Your task to perform on an android device: Open Youtube and go to "Your channel" Image 0: 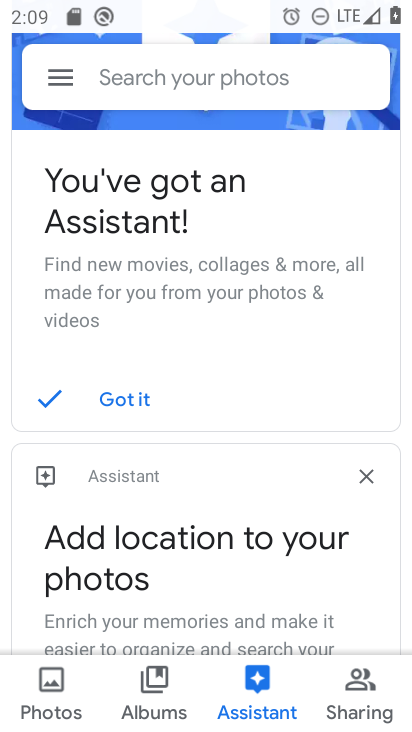
Step 0: press home button
Your task to perform on an android device: Open Youtube and go to "Your channel" Image 1: 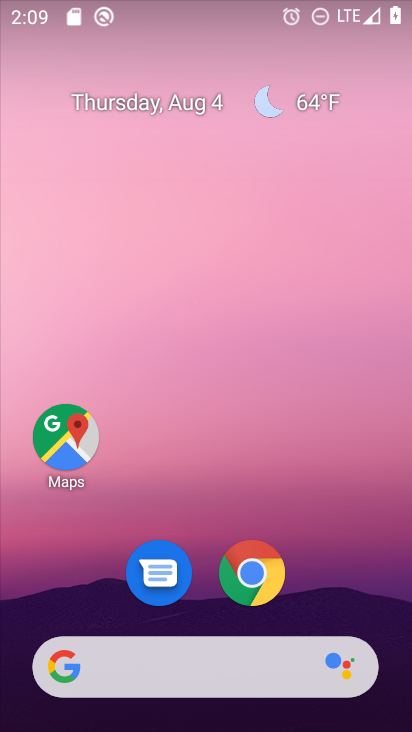
Step 1: drag from (329, 606) to (249, 171)
Your task to perform on an android device: Open Youtube and go to "Your channel" Image 2: 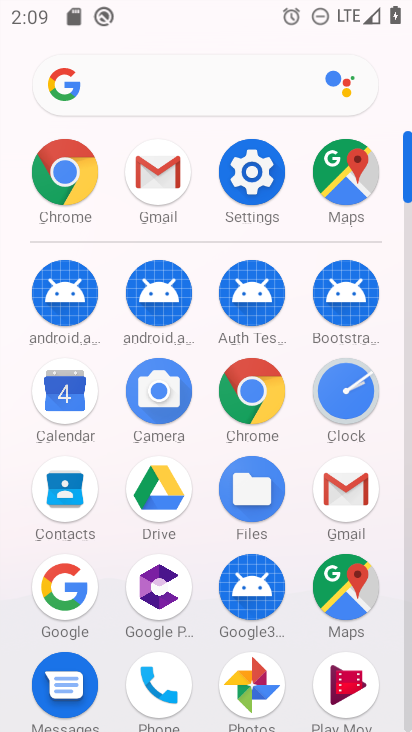
Step 2: drag from (198, 553) to (208, 217)
Your task to perform on an android device: Open Youtube and go to "Your channel" Image 3: 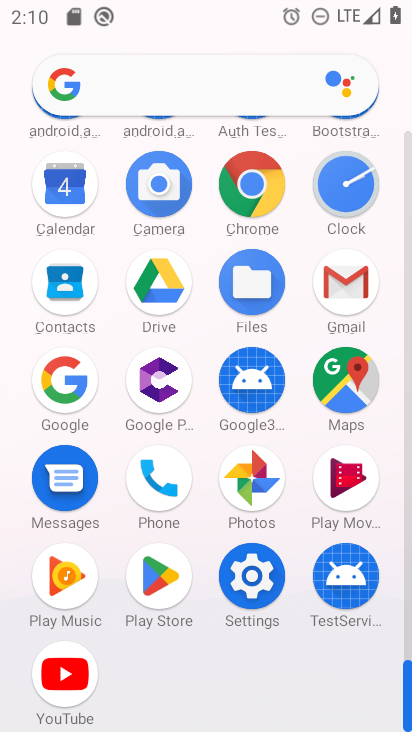
Step 3: click (53, 668)
Your task to perform on an android device: Open Youtube and go to "Your channel" Image 4: 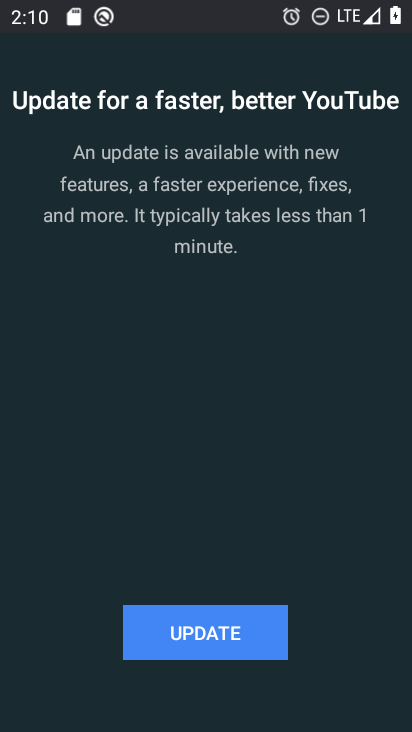
Step 4: click (211, 619)
Your task to perform on an android device: Open Youtube and go to "Your channel" Image 5: 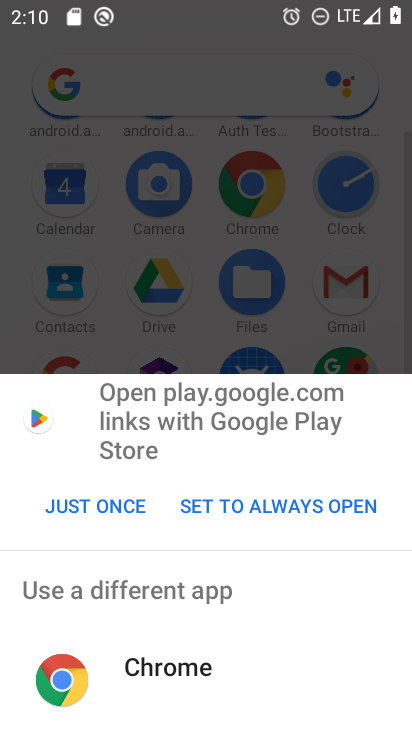
Step 5: click (116, 507)
Your task to perform on an android device: Open Youtube and go to "Your channel" Image 6: 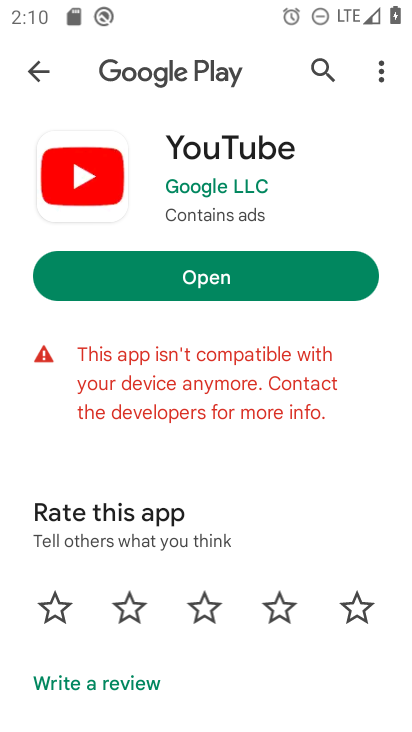
Step 6: click (176, 271)
Your task to perform on an android device: Open Youtube and go to "Your channel" Image 7: 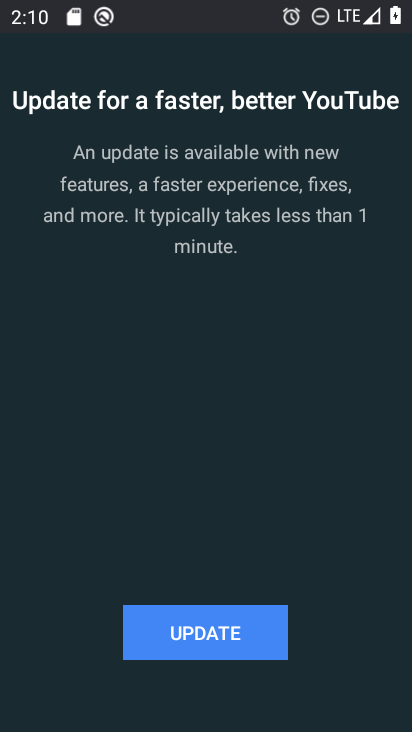
Step 7: task complete